Your task to perform on an android device: read, delete, or share a saved page in the chrome app Image 0: 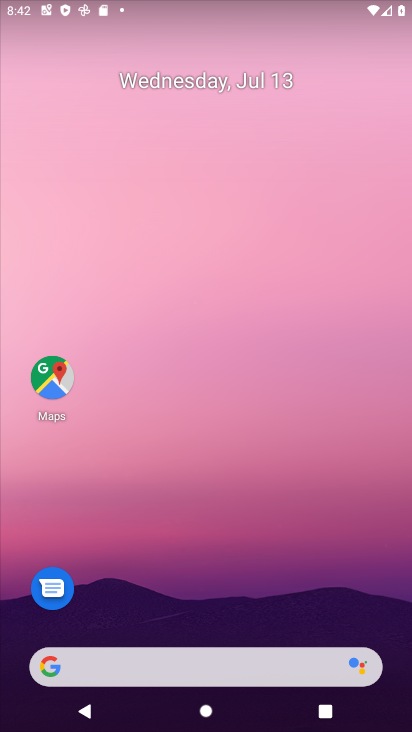
Step 0: drag from (164, 487) to (255, 10)
Your task to perform on an android device: read, delete, or share a saved page in the chrome app Image 1: 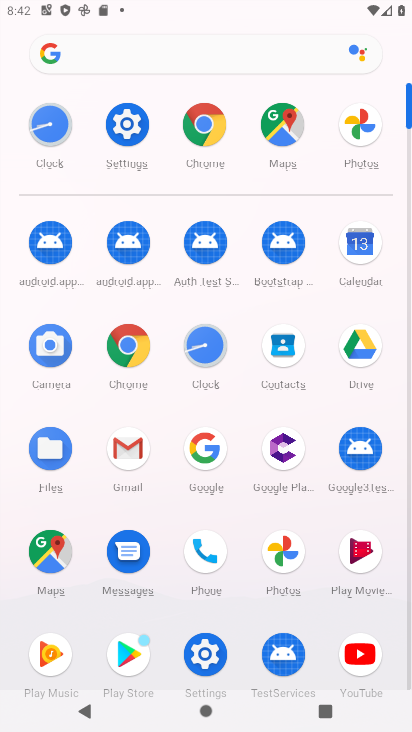
Step 1: click (214, 138)
Your task to perform on an android device: read, delete, or share a saved page in the chrome app Image 2: 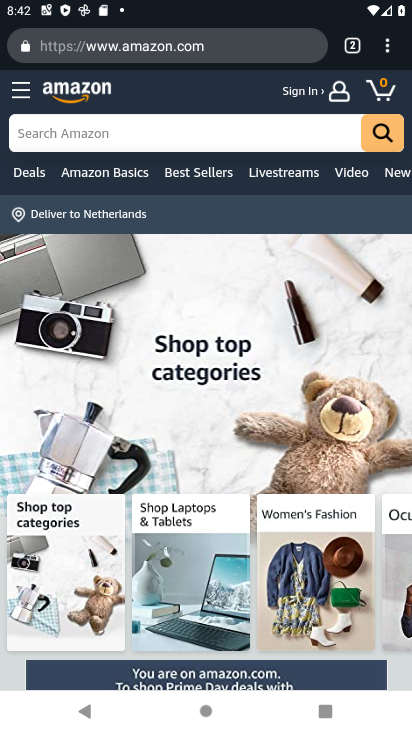
Step 2: click (393, 44)
Your task to perform on an android device: read, delete, or share a saved page in the chrome app Image 3: 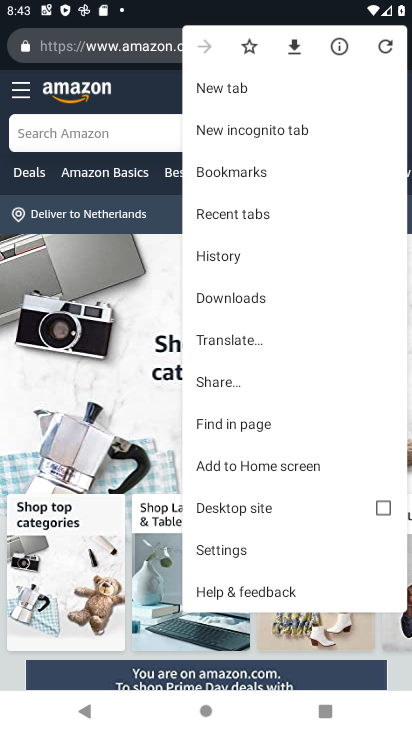
Step 3: click (262, 295)
Your task to perform on an android device: read, delete, or share a saved page in the chrome app Image 4: 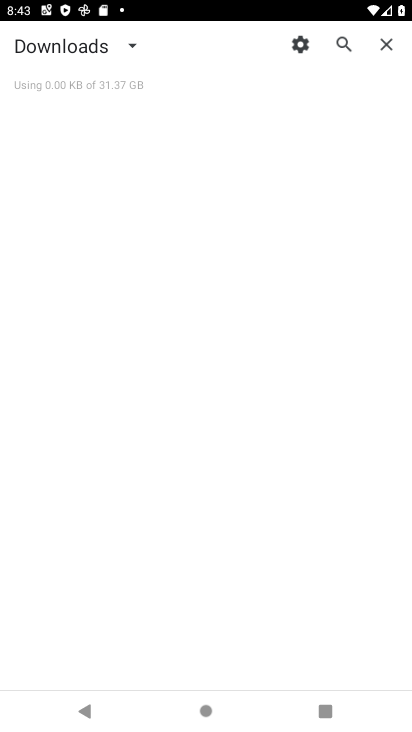
Step 4: task complete